Your task to perform on an android device: turn off improve location accuracy Image 0: 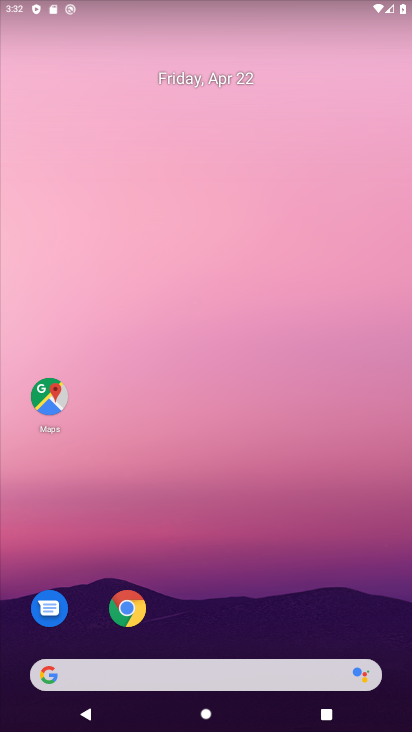
Step 0: drag from (322, 618) to (253, 150)
Your task to perform on an android device: turn off improve location accuracy Image 1: 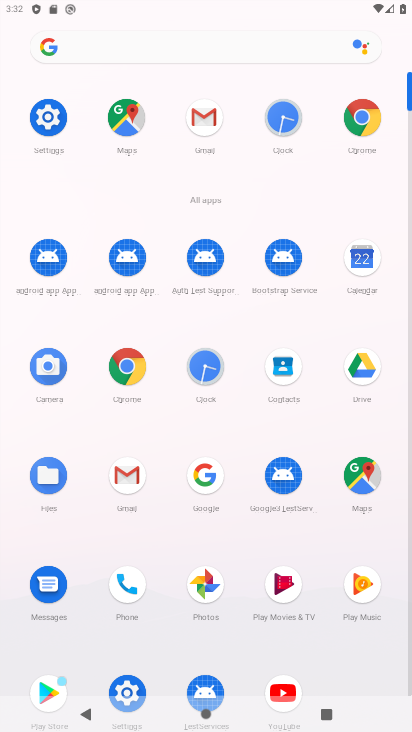
Step 1: click (40, 111)
Your task to perform on an android device: turn off improve location accuracy Image 2: 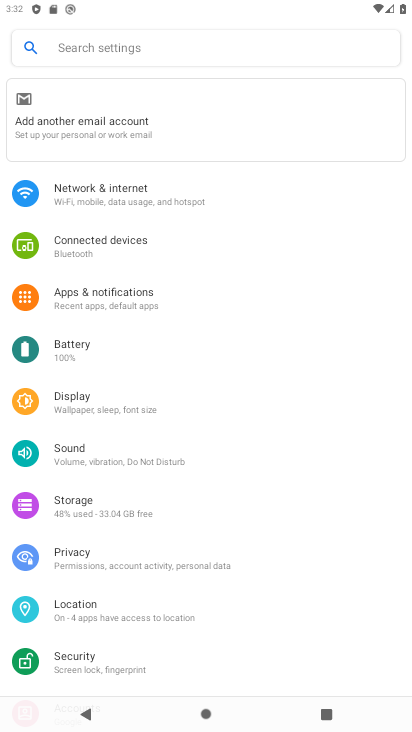
Step 2: click (155, 599)
Your task to perform on an android device: turn off improve location accuracy Image 3: 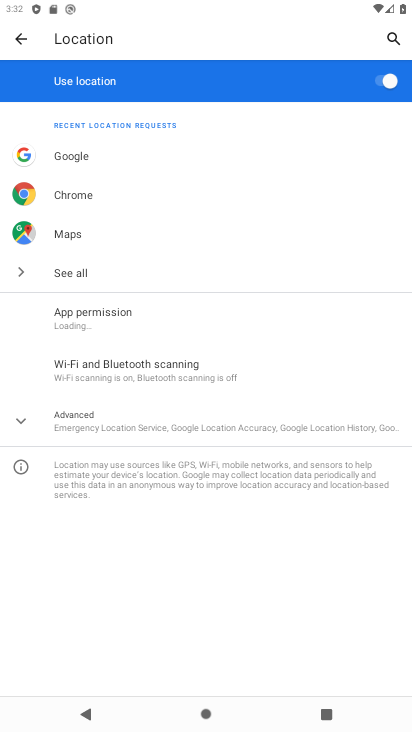
Step 3: click (211, 420)
Your task to perform on an android device: turn off improve location accuracy Image 4: 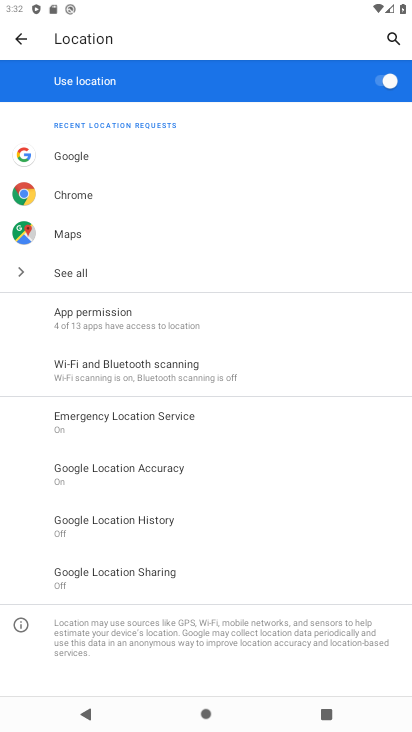
Step 4: click (220, 476)
Your task to perform on an android device: turn off improve location accuracy Image 5: 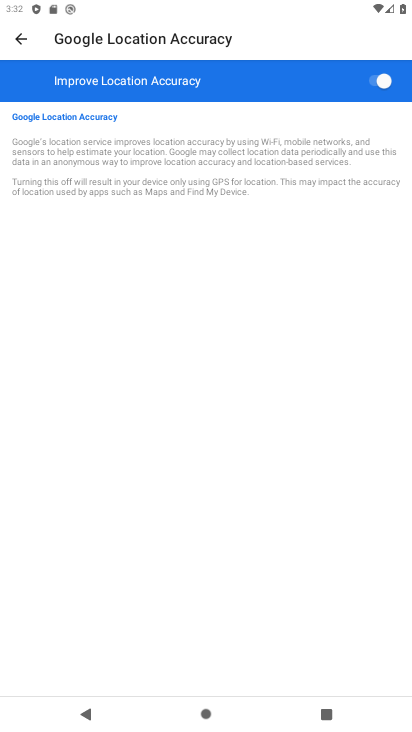
Step 5: click (378, 84)
Your task to perform on an android device: turn off improve location accuracy Image 6: 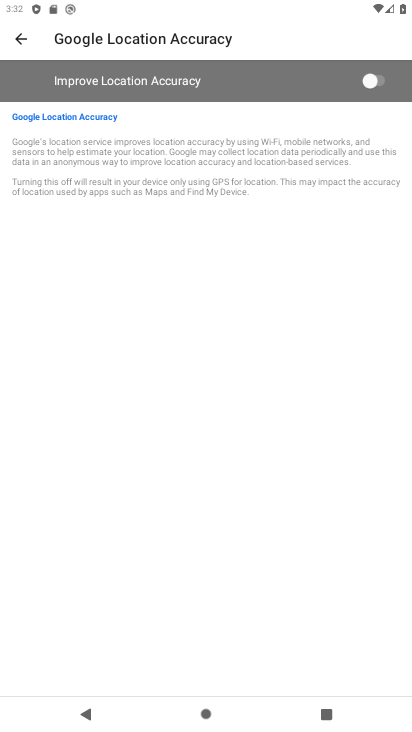
Step 6: task complete